Your task to perform on an android device: Search for flights from Tokyo to NYC Image 0: 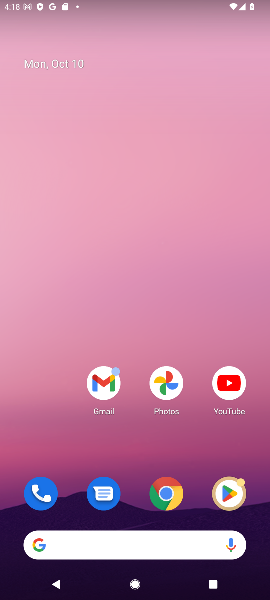
Step 0: click (182, 544)
Your task to perform on an android device: Search for flights from Tokyo to NYC Image 1: 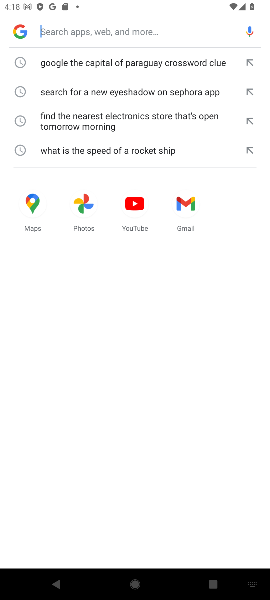
Step 1: type "Search for flights from Tokyo to NYC"
Your task to perform on an android device: Search for flights from Tokyo to NYC Image 2: 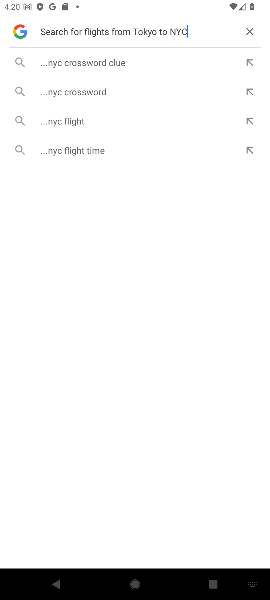
Step 2: click (97, 66)
Your task to perform on an android device: Search for flights from Tokyo to NYC Image 3: 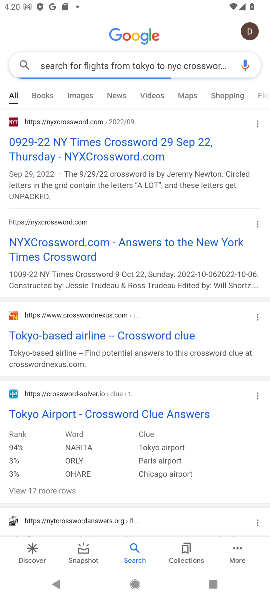
Step 3: task complete